Your task to perform on an android device: Open Google Chrome and open the bookmarks view Image 0: 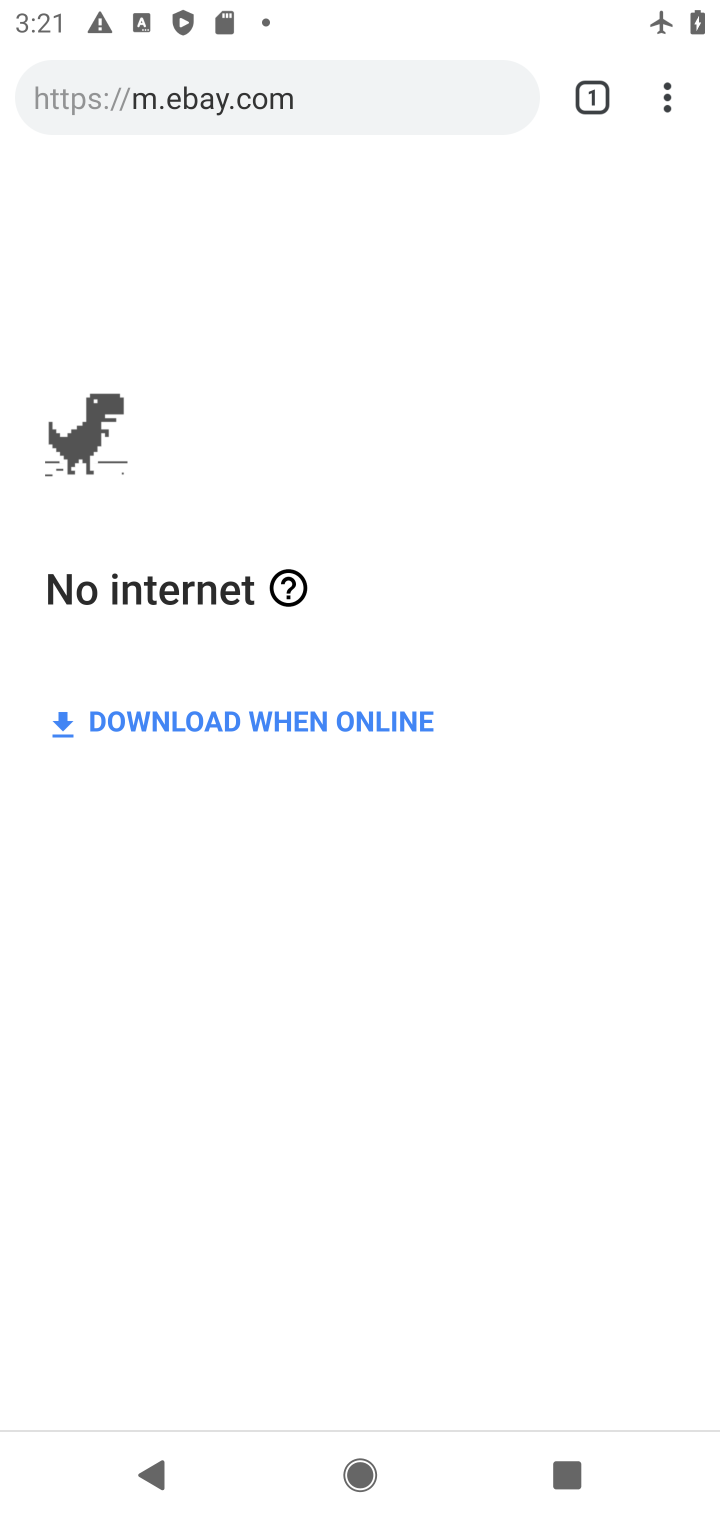
Step 0: press home button
Your task to perform on an android device: Open Google Chrome and open the bookmarks view Image 1: 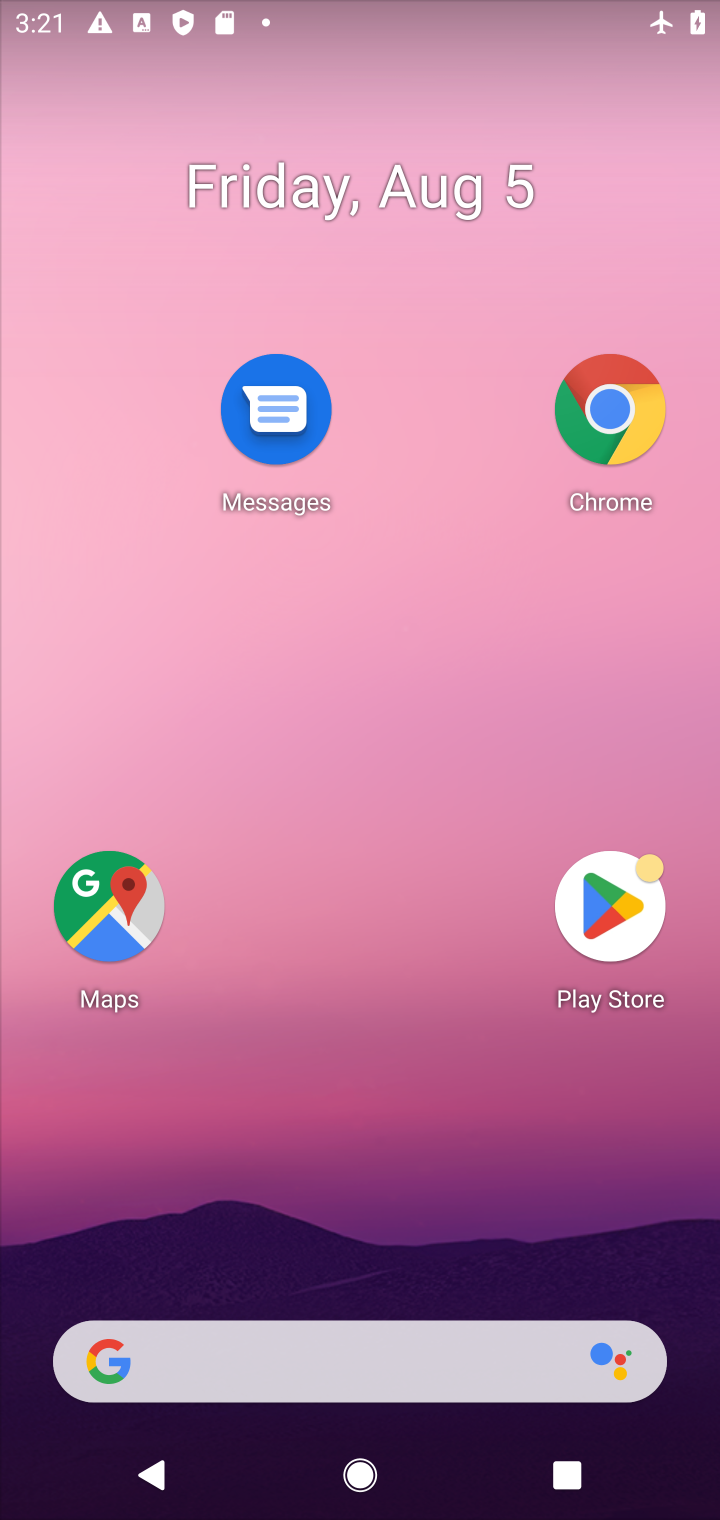
Step 1: click (527, 390)
Your task to perform on an android device: Open Google Chrome and open the bookmarks view Image 2: 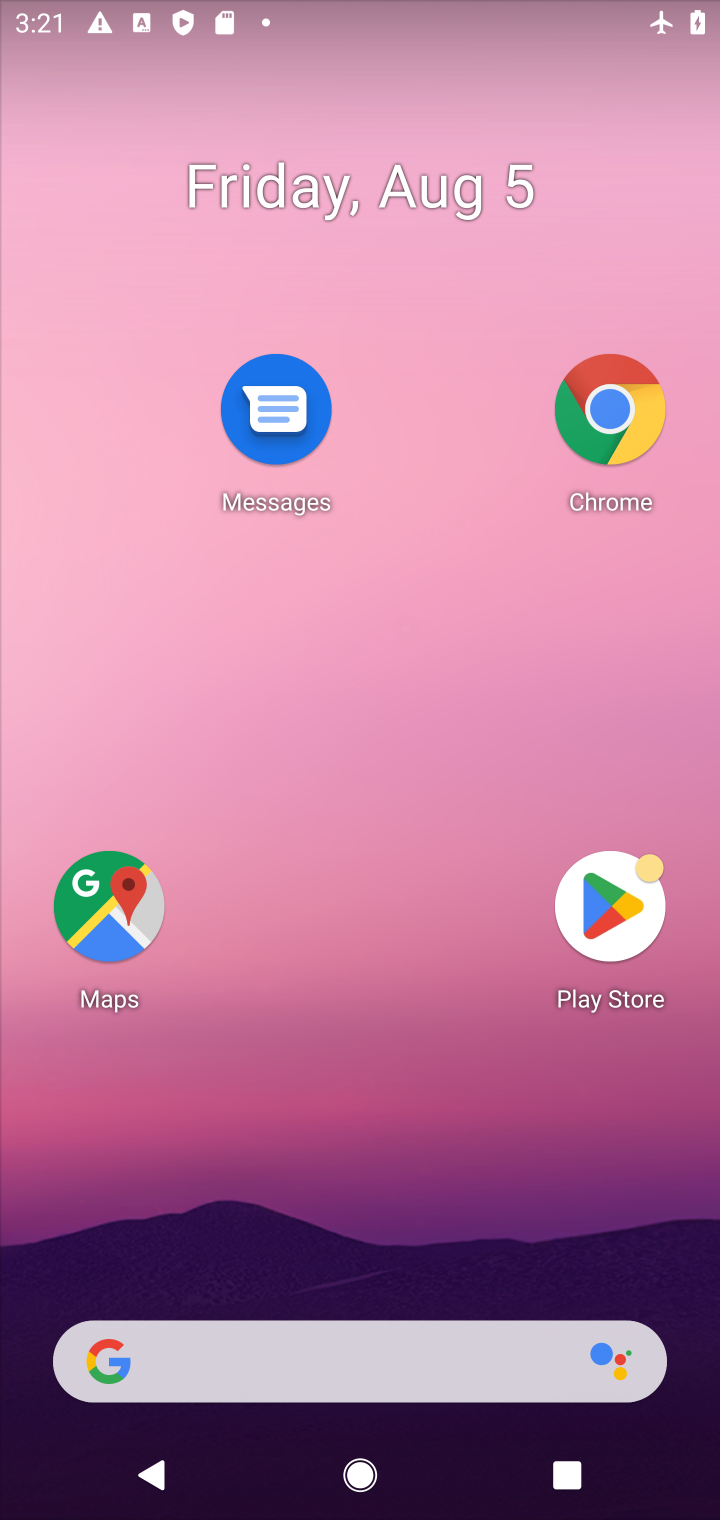
Step 2: click (618, 433)
Your task to perform on an android device: Open Google Chrome and open the bookmarks view Image 3: 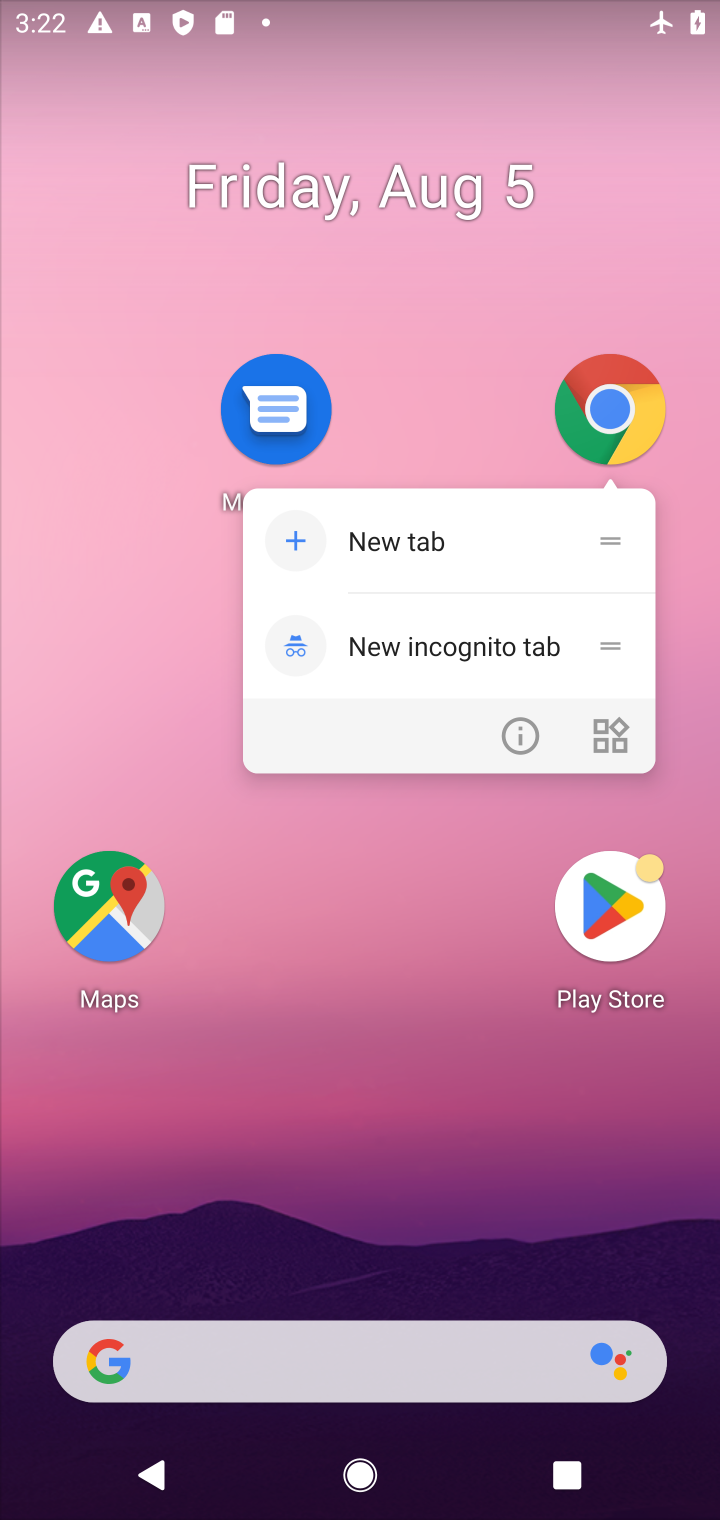
Step 3: click (604, 396)
Your task to perform on an android device: Open Google Chrome and open the bookmarks view Image 4: 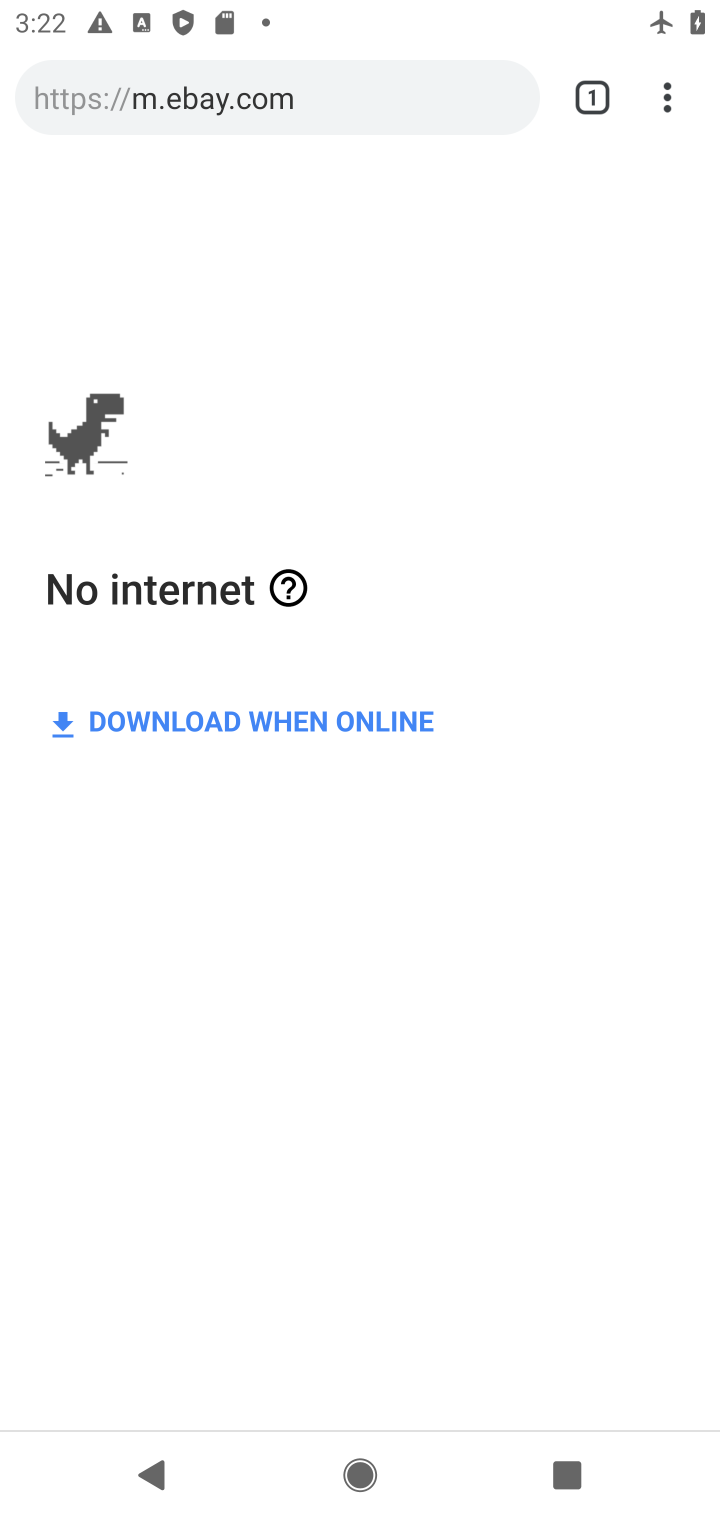
Step 4: task complete